Your task to perform on an android device: check google app version Image 0: 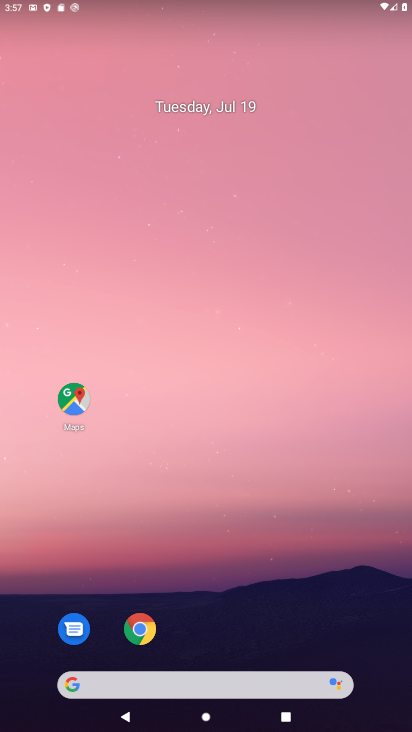
Step 0: drag from (208, 599) to (132, 151)
Your task to perform on an android device: check google app version Image 1: 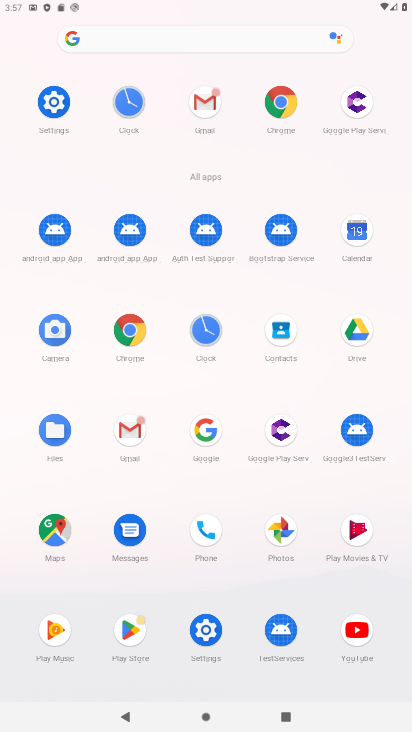
Step 1: click (200, 432)
Your task to perform on an android device: check google app version Image 2: 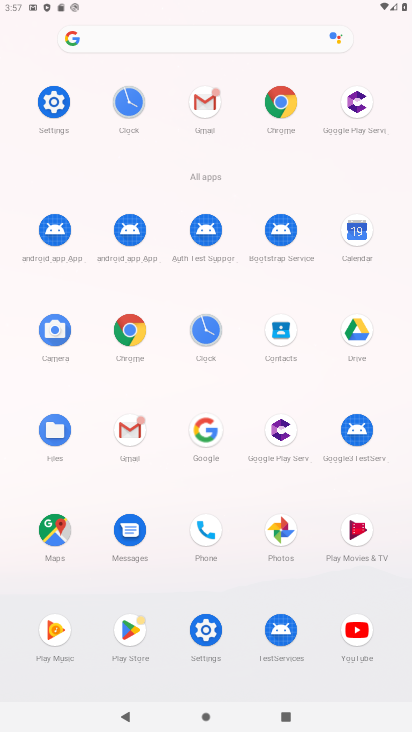
Step 2: click (207, 432)
Your task to perform on an android device: check google app version Image 3: 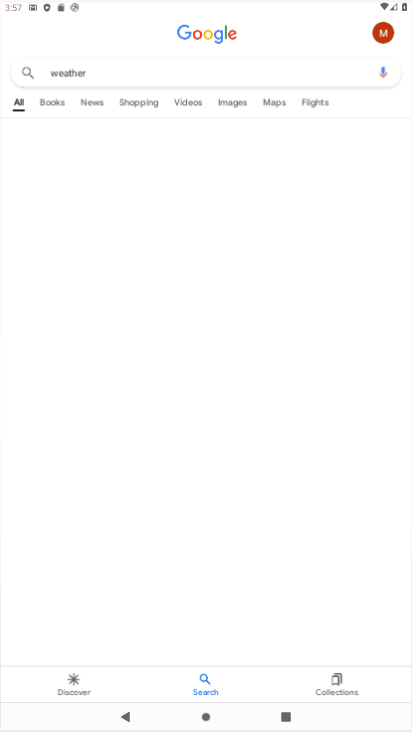
Step 3: click (215, 440)
Your task to perform on an android device: check google app version Image 4: 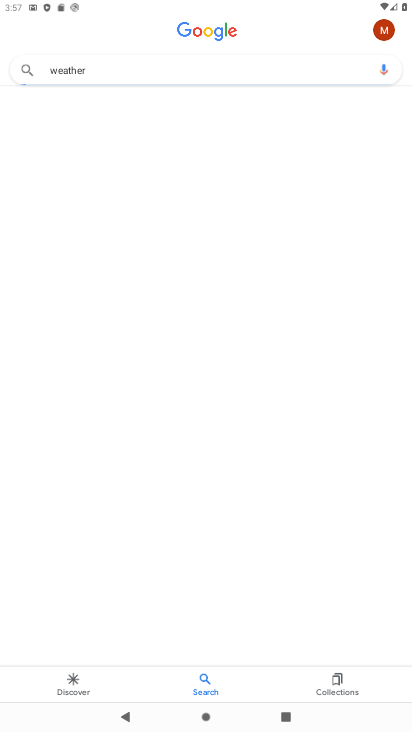
Step 4: click (216, 443)
Your task to perform on an android device: check google app version Image 5: 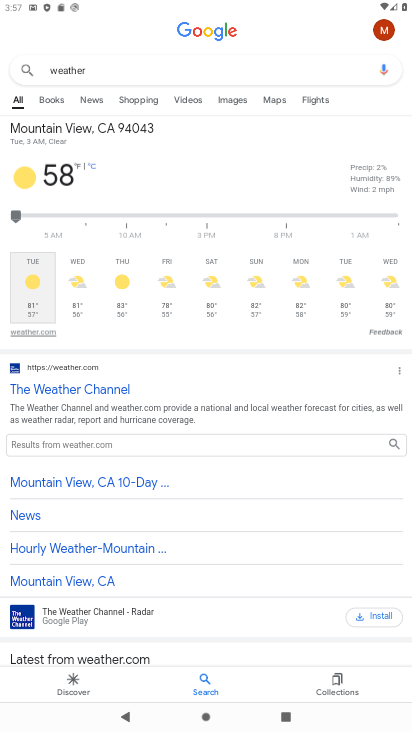
Step 5: click (95, 72)
Your task to perform on an android device: check google app version Image 6: 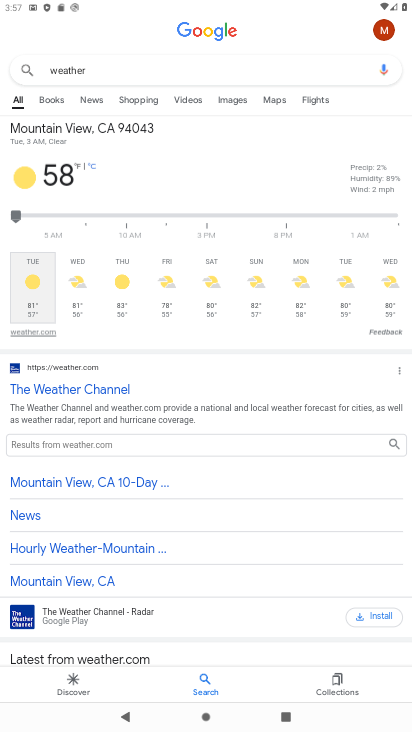
Step 6: click (95, 72)
Your task to perform on an android device: check google app version Image 7: 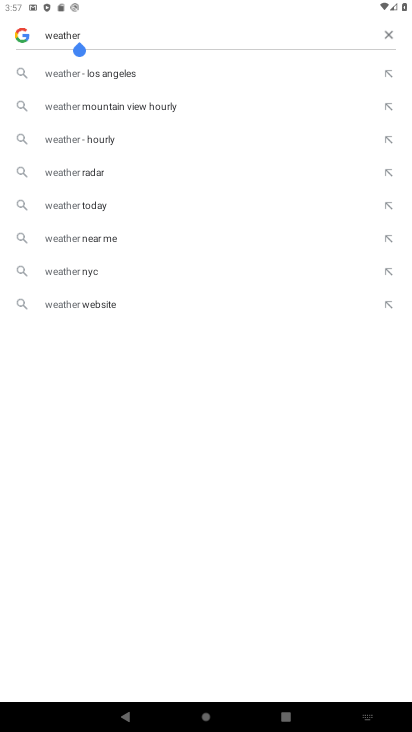
Step 7: click (94, 73)
Your task to perform on an android device: check google app version Image 8: 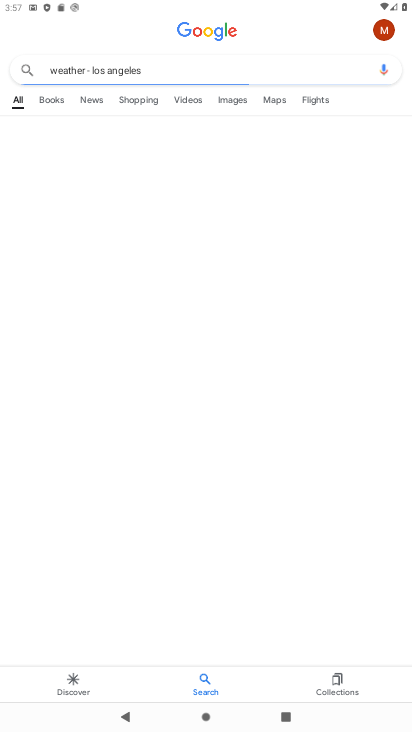
Step 8: click (390, 36)
Your task to perform on an android device: check google app version Image 9: 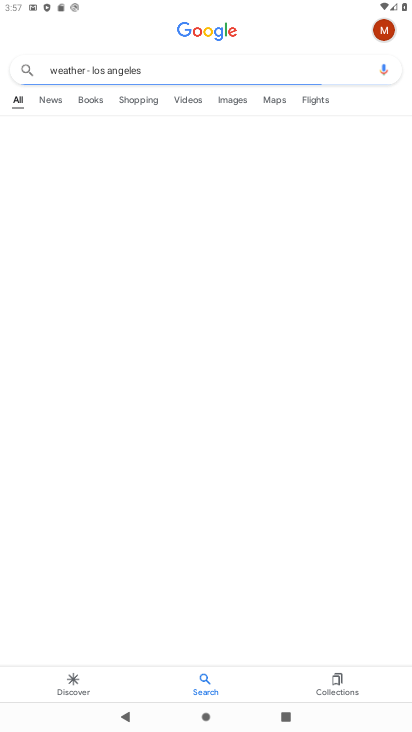
Step 9: click (384, 40)
Your task to perform on an android device: check google app version Image 10: 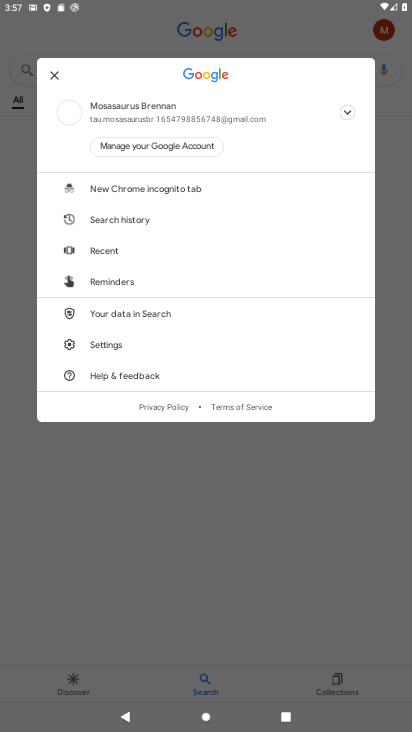
Step 10: click (338, 681)
Your task to perform on an android device: check google app version Image 11: 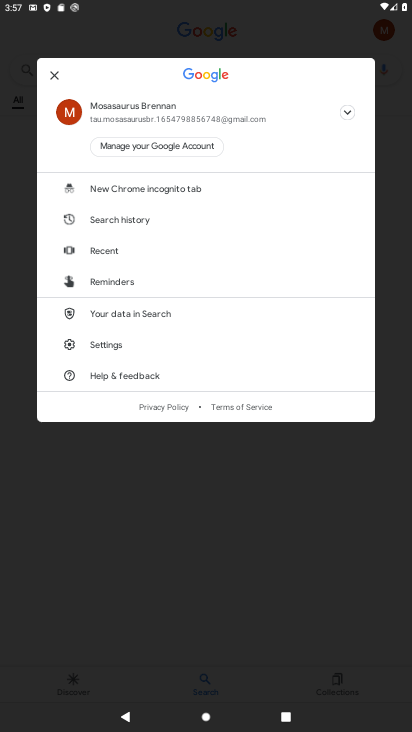
Step 11: click (121, 345)
Your task to perform on an android device: check google app version Image 12: 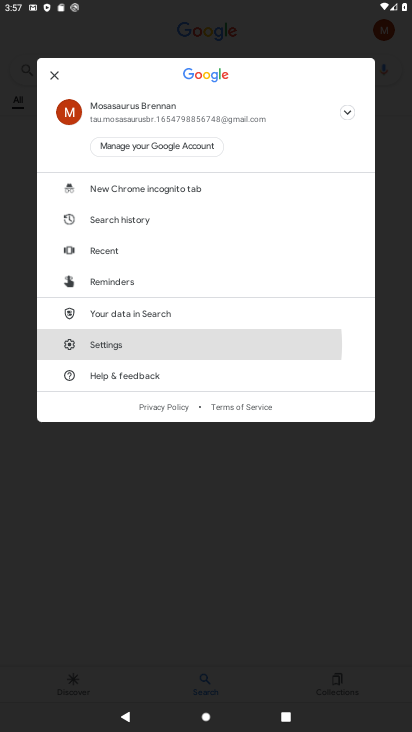
Step 12: click (120, 343)
Your task to perform on an android device: check google app version Image 13: 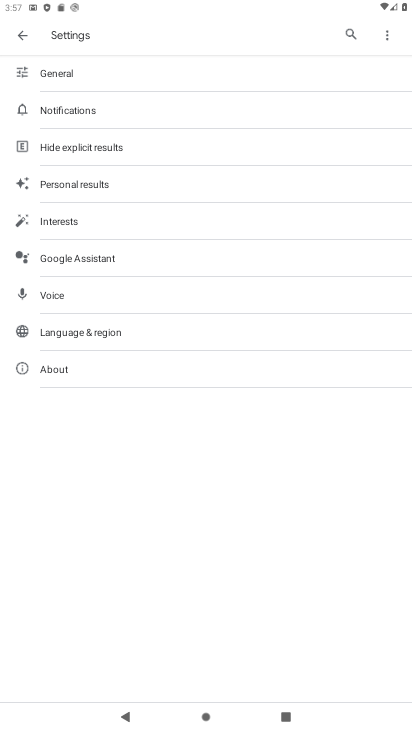
Step 13: click (73, 370)
Your task to perform on an android device: check google app version Image 14: 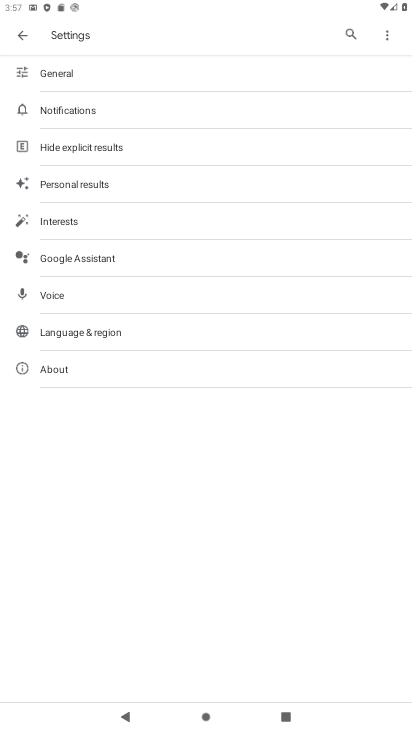
Step 14: click (74, 368)
Your task to perform on an android device: check google app version Image 15: 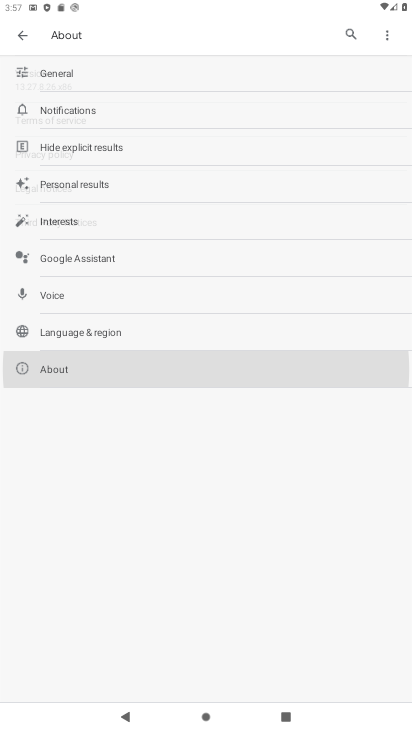
Step 15: click (75, 367)
Your task to perform on an android device: check google app version Image 16: 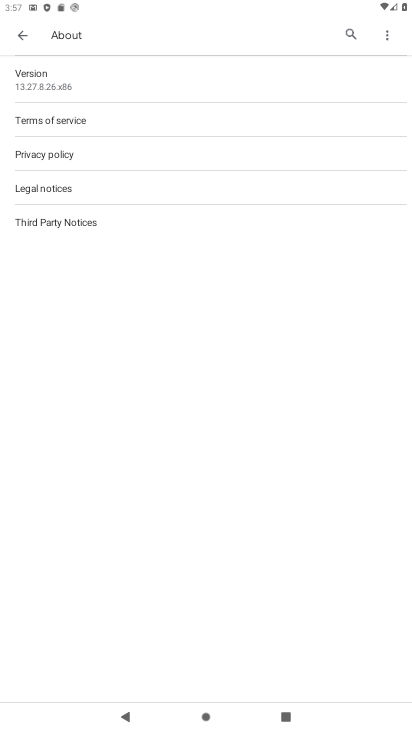
Step 16: click (38, 73)
Your task to perform on an android device: check google app version Image 17: 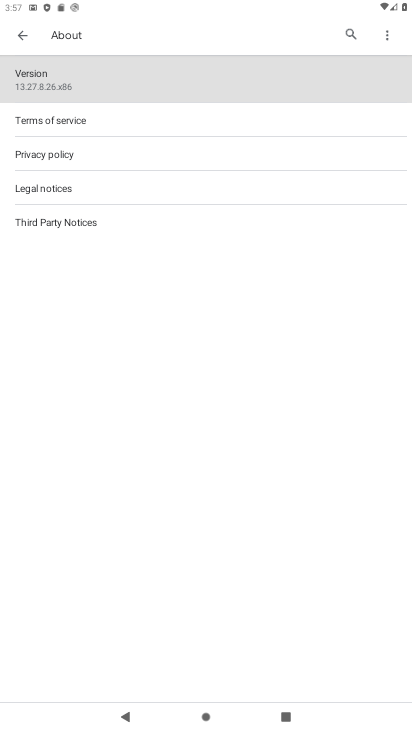
Step 17: click (38, 73)
Your task to perform on an android device: check google app version Image 18: 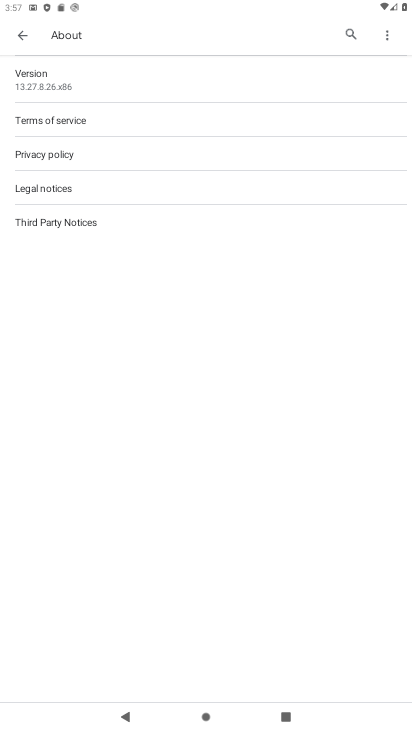
Step 18: click (38, 83)
Your task to perform on an android device: check google app version Image 19: 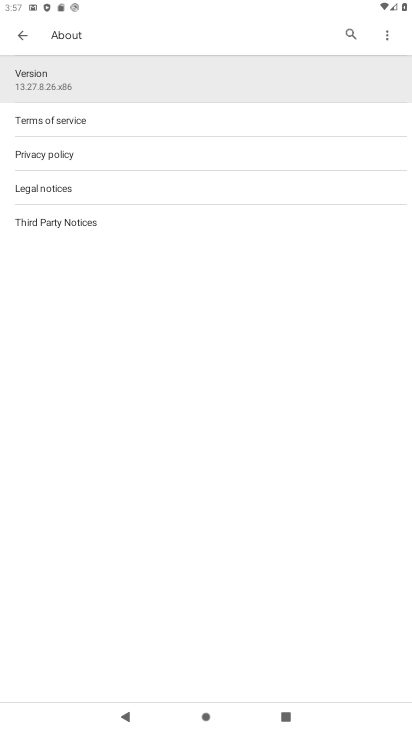
Step 19: click (39, 82)
Your task to perform on an android device: check google app version Image 20: 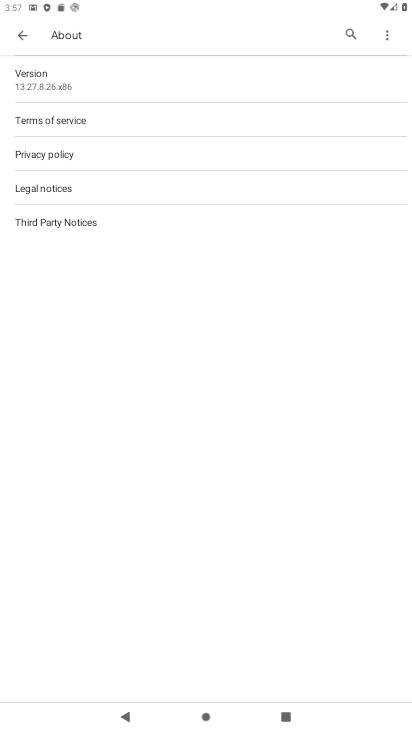
Step 20: task complete